Your task to perform on an android device: toggle show notifications on the lock screen Image 0: 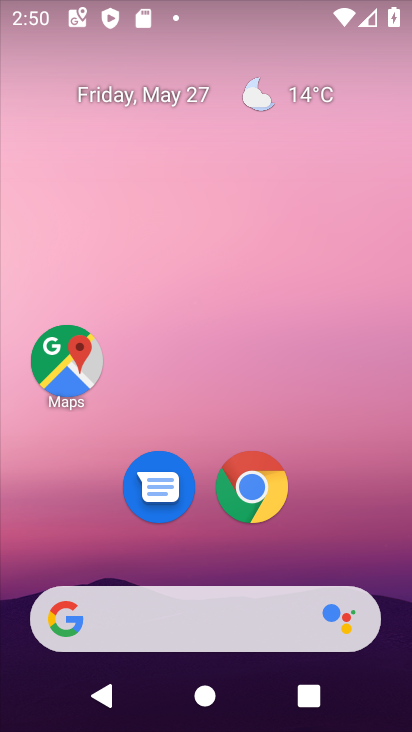
Step 0: drag from (342, 555) to (263, 0)
Your task to perform on an android device: toggle show notifications on the lock screen Image 1: 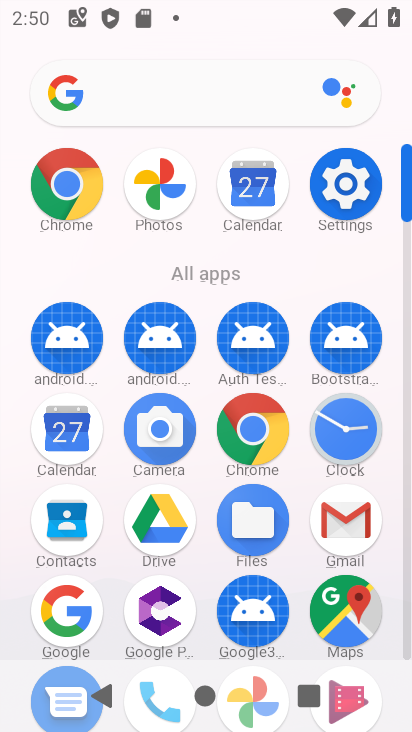
Step 1: click (338, 228)
Your task to perform on an android device: toggle show notifications on the lock screen Image 2: 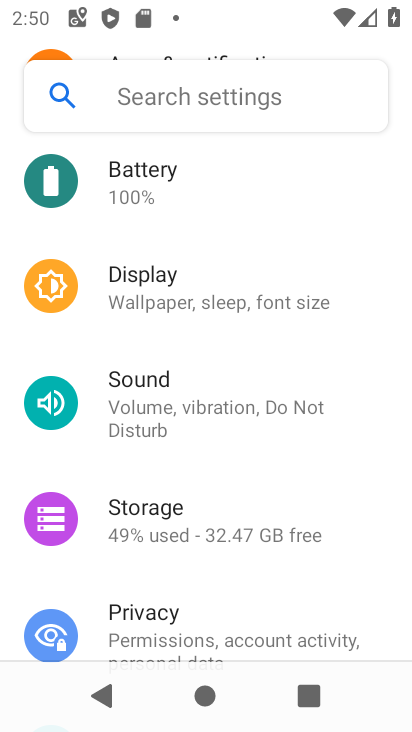
Step 2: drag from (196, 205) to (220, 629)
Your task to perform on an android device: toggle show notifications on the lock screen Image 3: 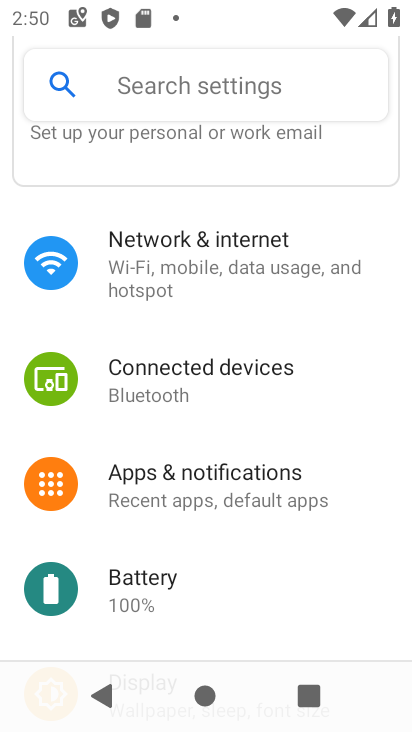
Step 3: click (155, 515)
Your task to perform on an android device: toggle show notifications on the lock screen Image 4: 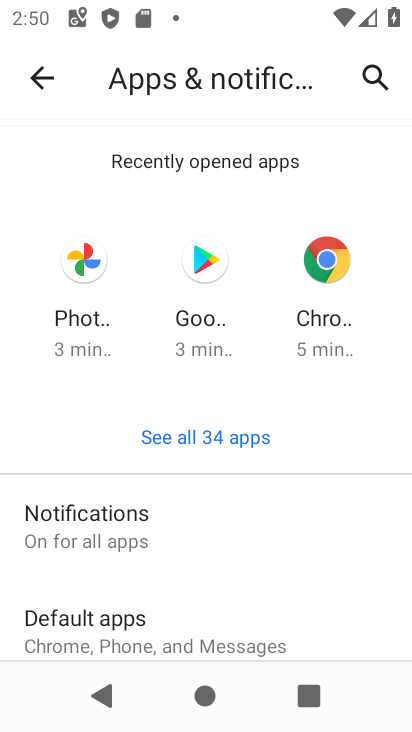
Step 4: click (118, 545)
Your task to perform on an android device: toggle show notifications on the lock screen Image 5: 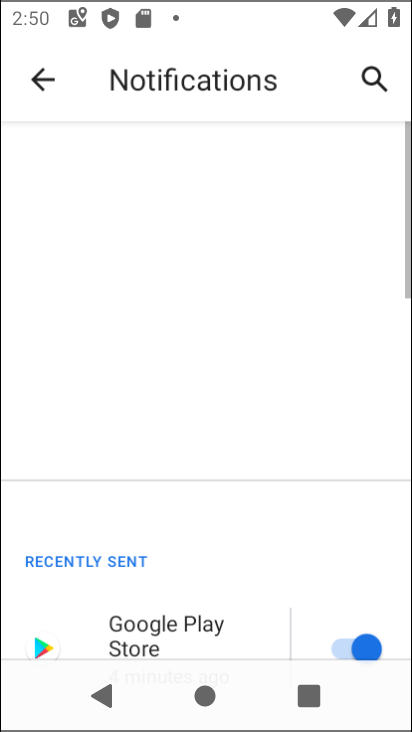
Step 5: drag from (197, 604) to (179, 17)
Your task to perform on an android device: toggle show notifications on the lock screen Image 6: 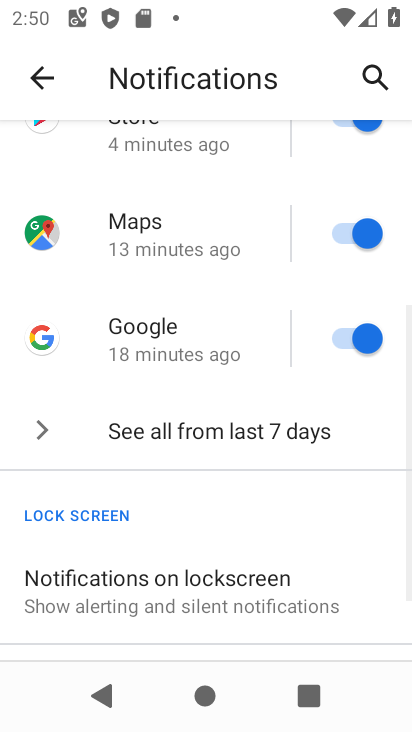
Step 6: drag from (203, 601) to (157, 65)
Your task to perform on an android device: toggle show notifications on the lock screen Image 7: 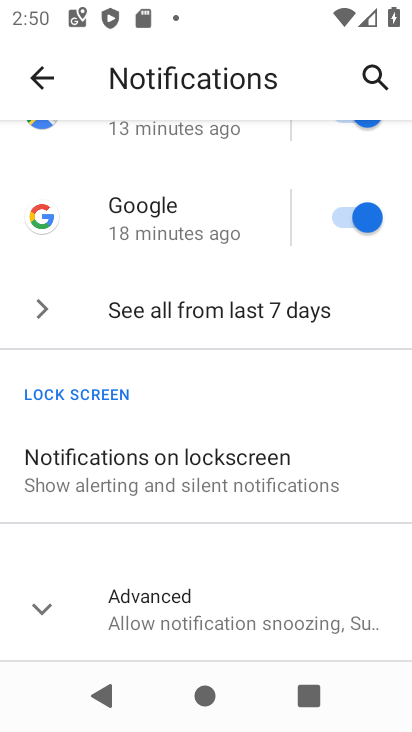
Step 7: click (117, 472)
Your task to perform on an android device: toggle show notifications on the lock screen Image 8: 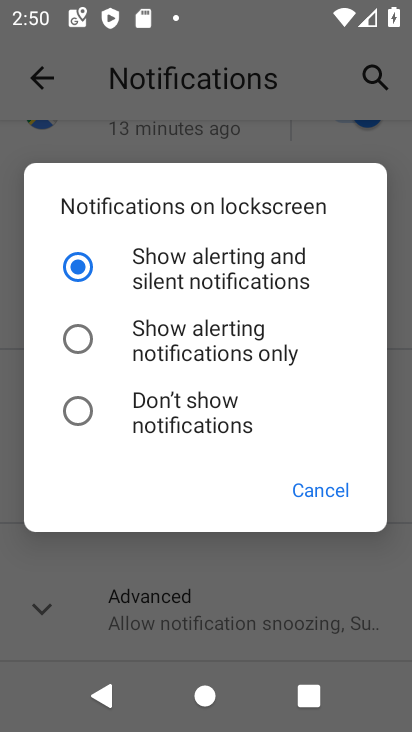
Step 8: click (94, 338)
Your task to perform on an android device: toggle show notifications on the lock screen Image 9: 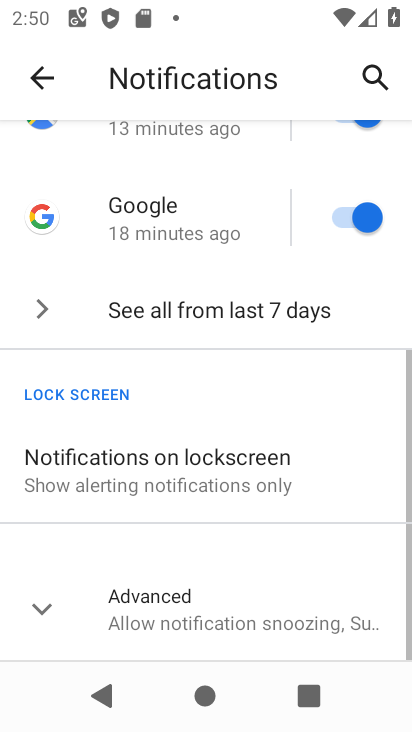
Step 9: task complete